Your task to perform on an android device: Open Wikipedia Image 0: 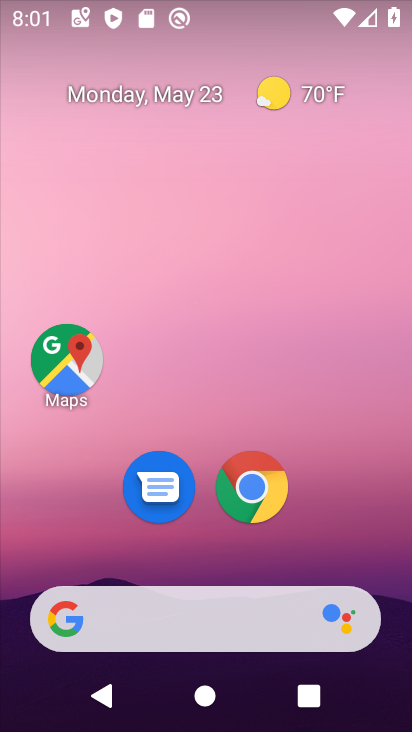
Step 0: click (251, 490)
Your task to perform on an android device: Open Wikipedia Image 1: 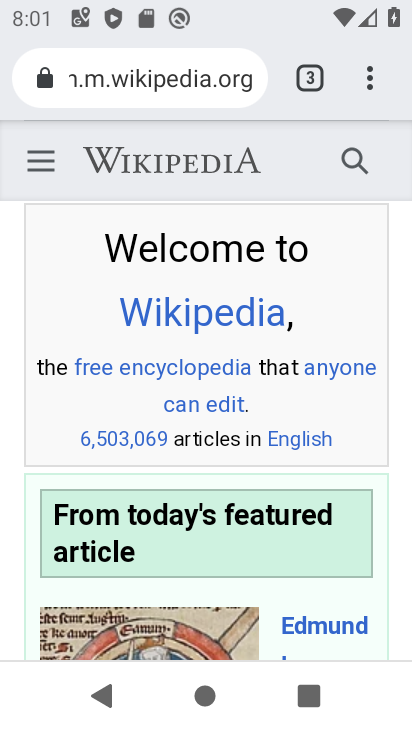
Step 1: task complete